Your task to perform on an android device: What's the latest video from GameTrailers? Image 0: 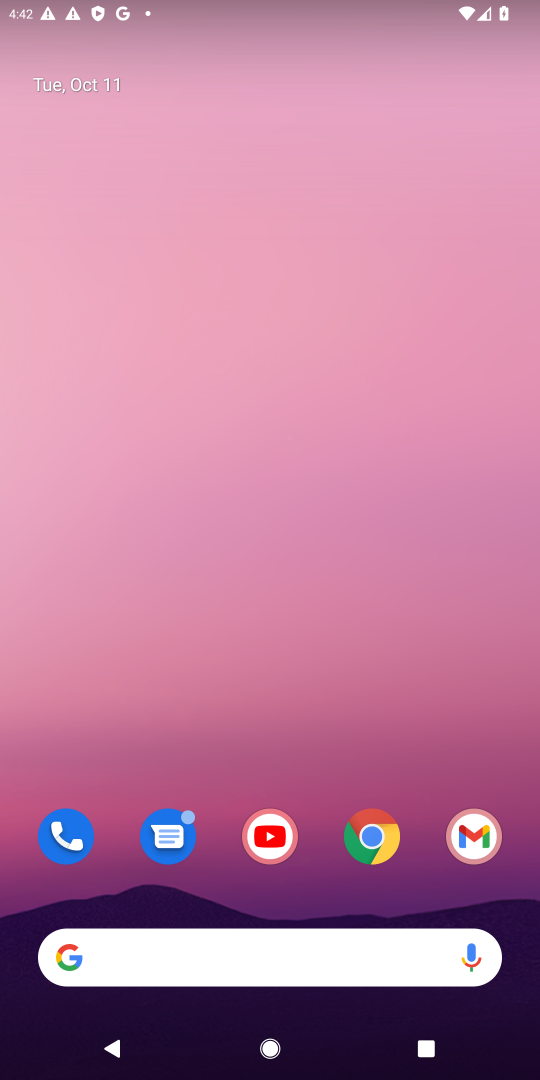
Step 0: click (356, 844)
Your task to perform on an android device: What's the latest video from GameTrailers? Image 1: 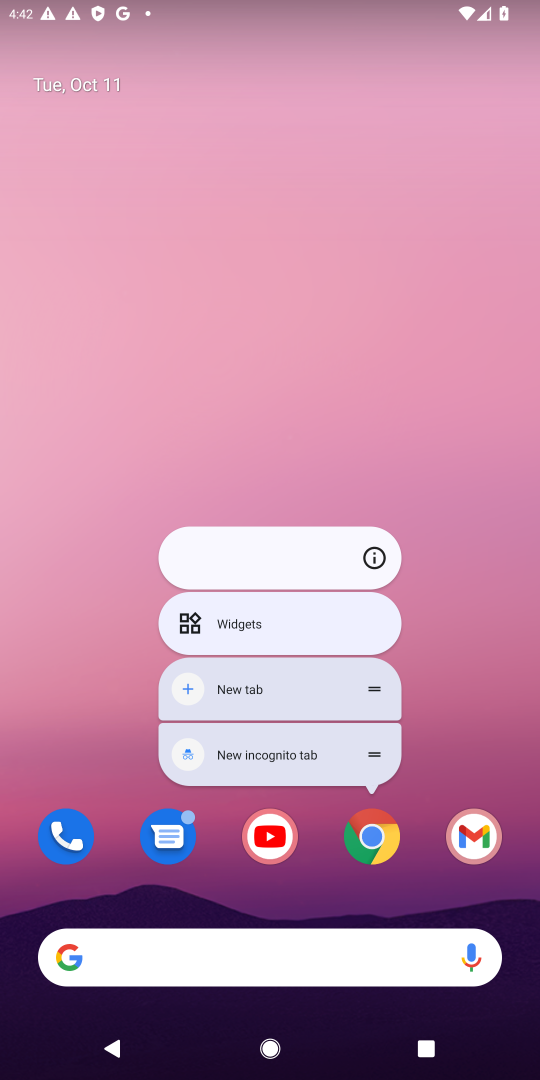
Step 1: click (372, 838)
Your task to perform on an android device: What's the latest video from GameTrailers? Image 2: 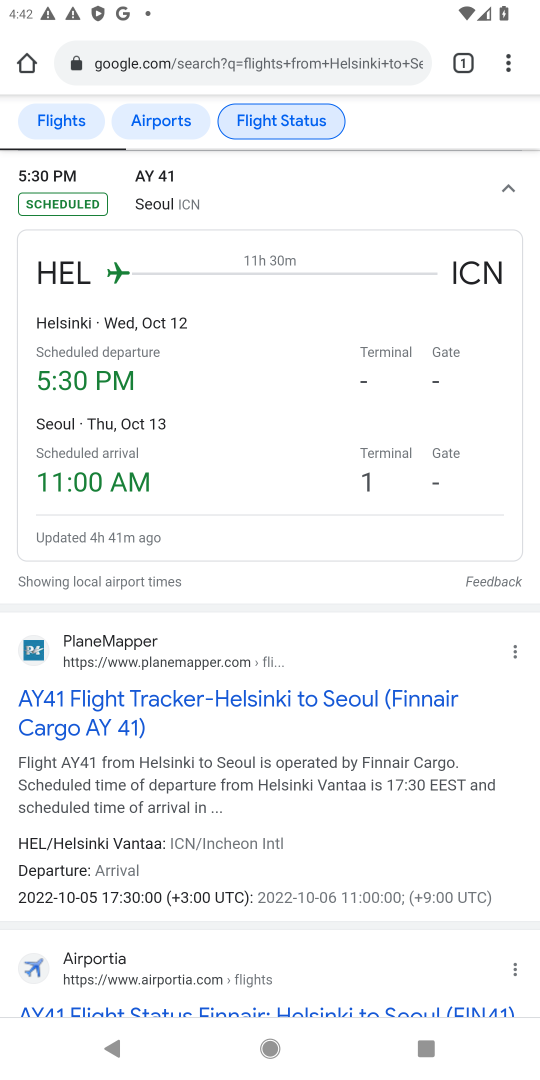
Step 2: click (348, 56)
Your task to perform on an android device: What's the latest video from GameTrailers? Image 3: 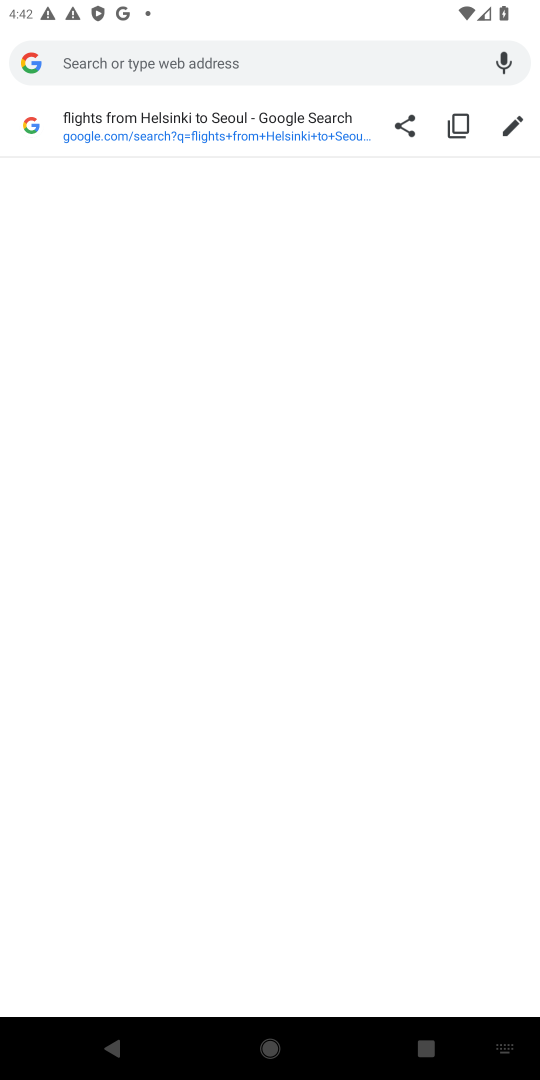
Step 3: type " latest video from GameTrailers"
Your task to perform on an android device: What's the latest video from GameTrailers? Image 4: 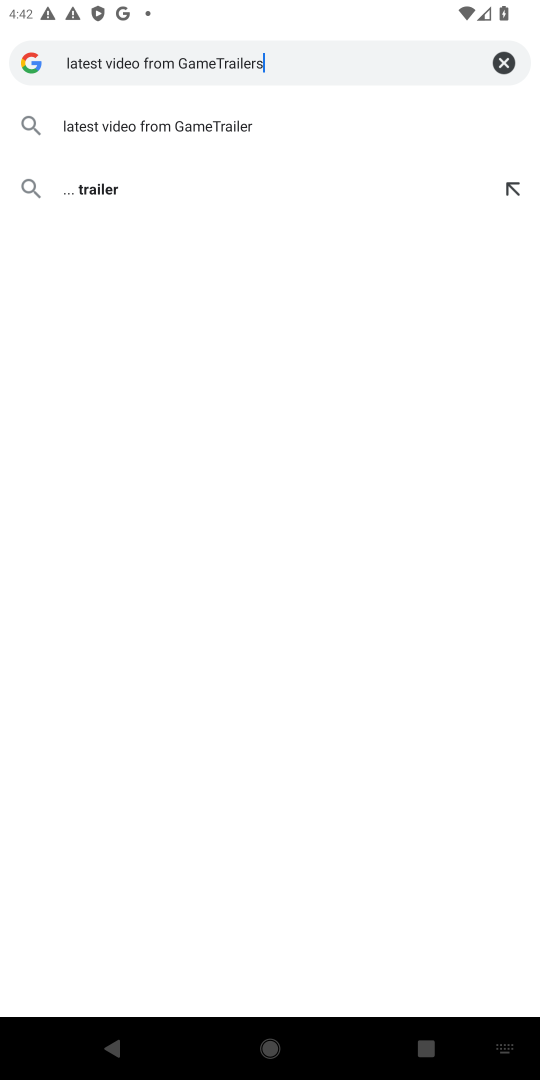
Step 4: press enter
Your task to perform on an android device: What's the latest video from GameTrailers? Image 5: 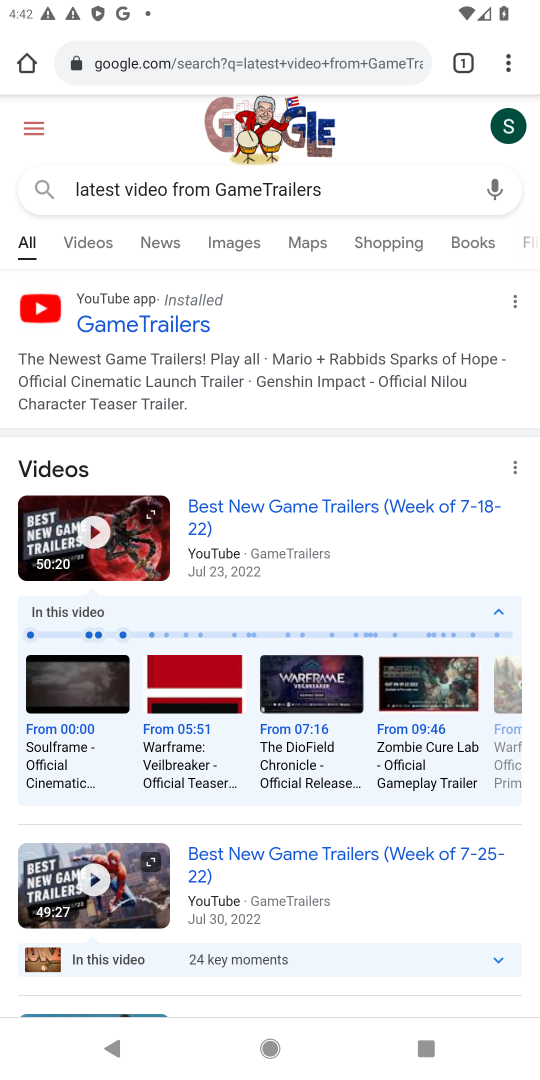
Step 5: click (100, 531)
Your task to perform on an android device: What's the latest video from GameTrailers? Image 6: 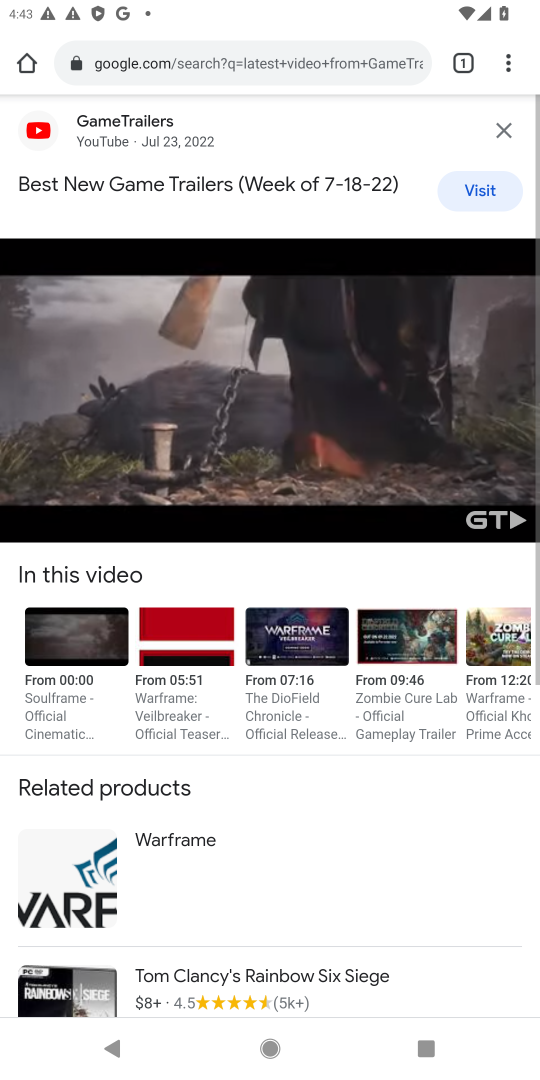
Step 6: click (258, 415)
Your task to perform on an android device: What's the latest video from GameTrailers? Image 7: 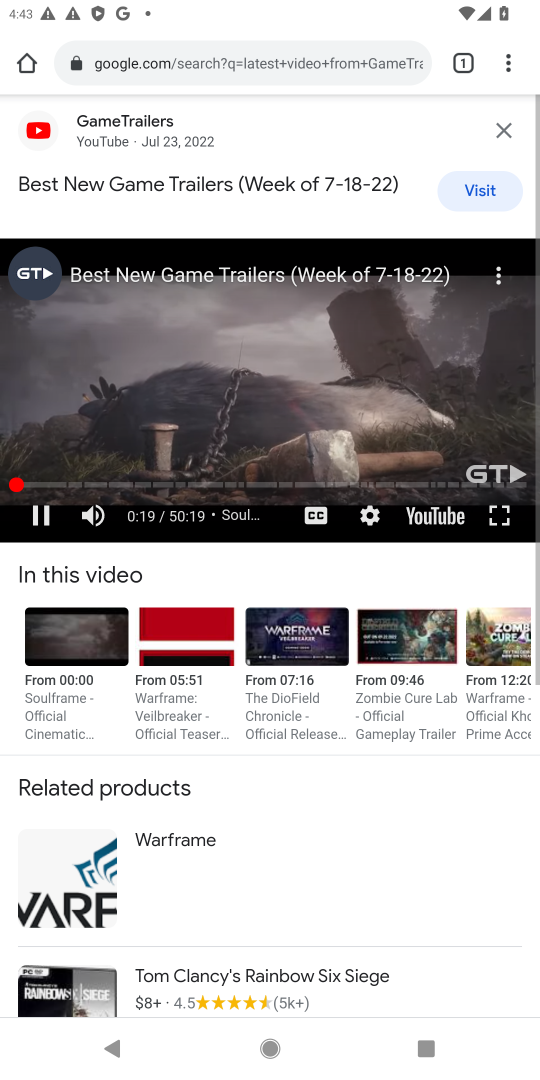
Step 7: click (261, 359)
Your task to perform on an android device: What's the latest video from GameTrailers? Image 8: 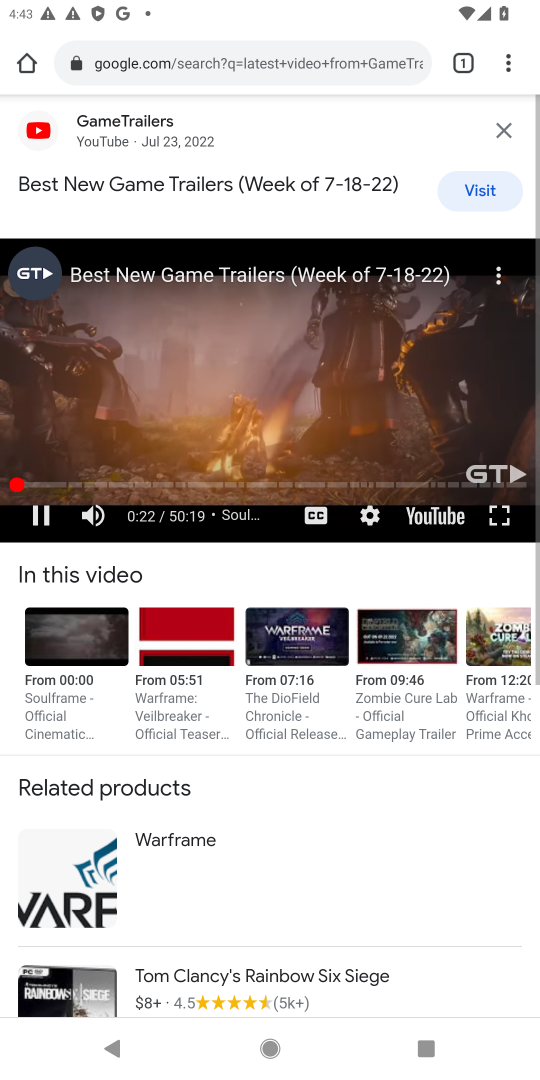
Step 8: click (261, 391)
Your task to perform on an android device: What's the latest video from GameTrailers? Image 9: 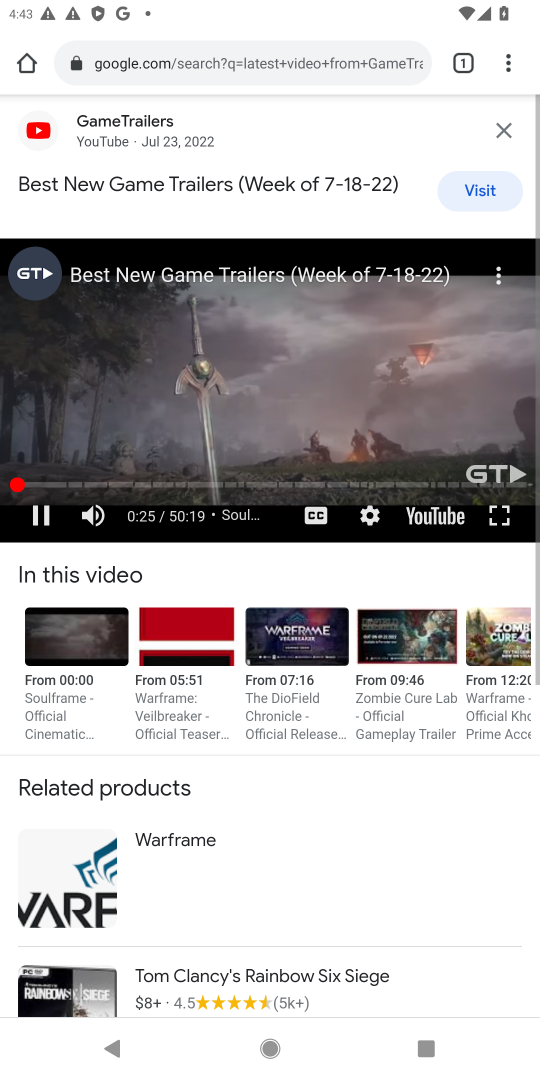
Step 9: click (261, 404)
Your task to perform on an android device: What's the latest video from GameTrailers? Image 10: 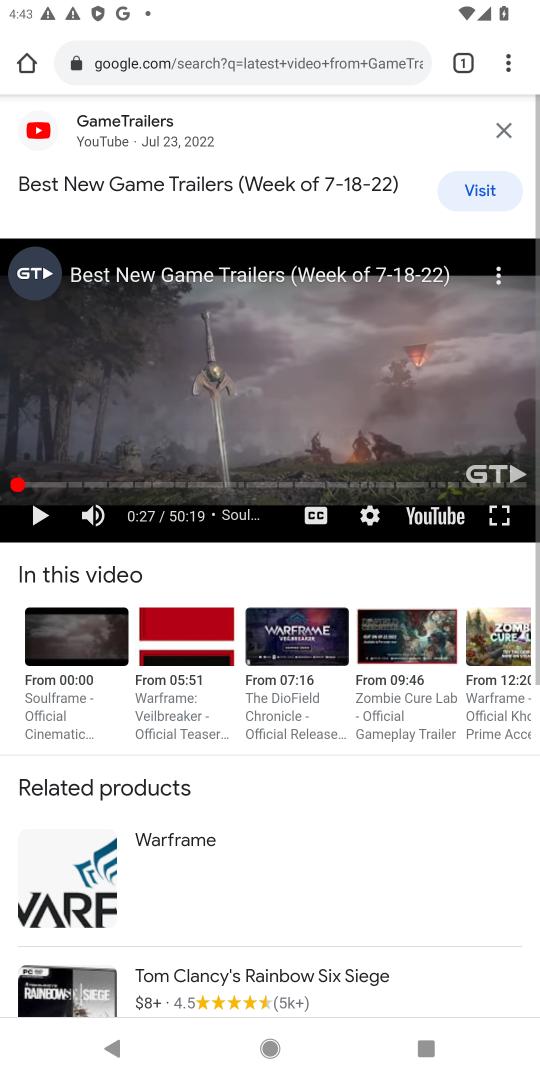
Step 10: click (261, 404)
Your task to perform on an android device: What's the latest video from GameTrailers? Image 11: 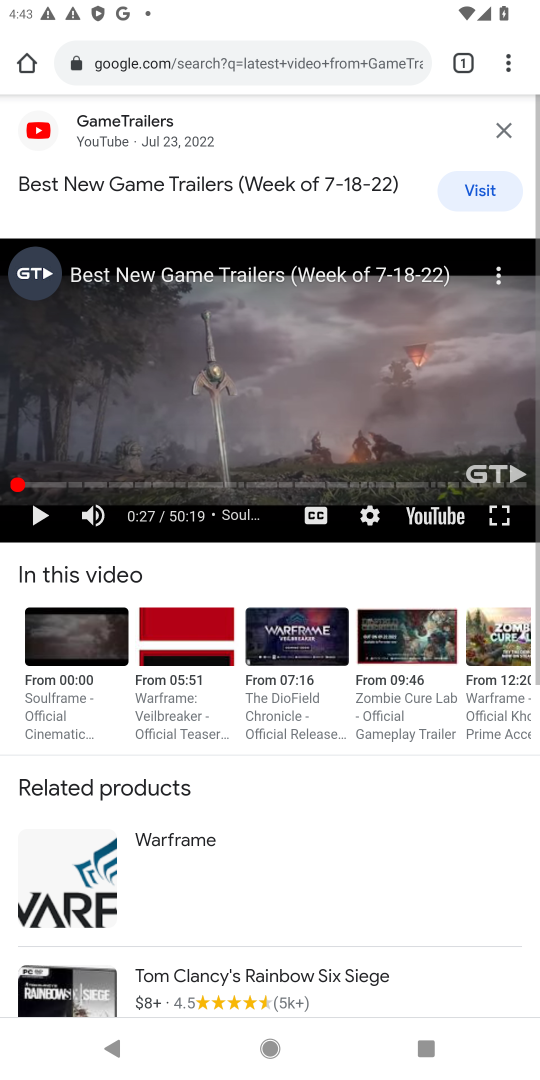
Step 11: task complete